Your task to perform on an android device: Go to privacy settings Image 0: 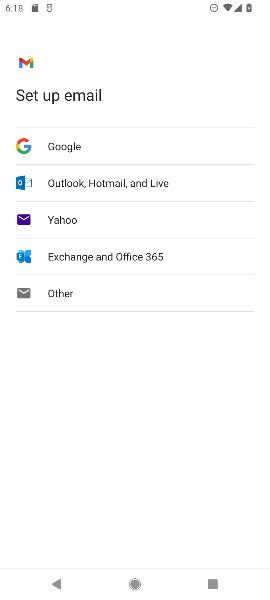
Step 0: press home button
Your task to perform on an android device: Go to privacy settings Image 1: 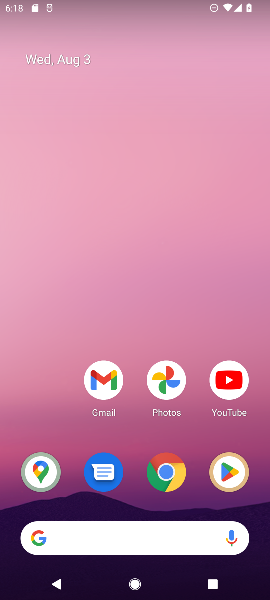
Step 1: drag from (192, 513) to (93, 65)
Your task to perform on an android device: Go to privacy settings Image 2: 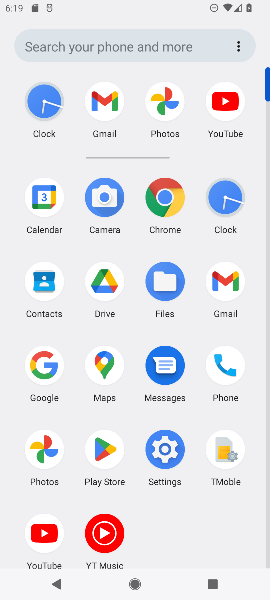
Step 2: click (156, 448)
Your task to perform on an android device: Go to privacy settings Image 3: 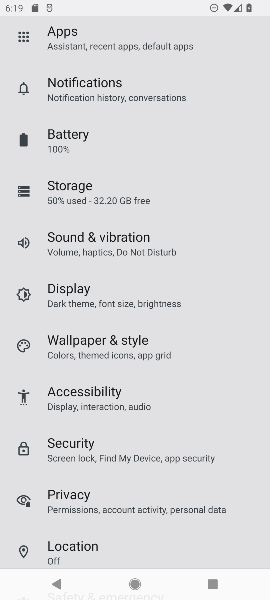
Step 3: click (90, 497)
Your task to perform on an android device: Go to privacy settings Image 4: 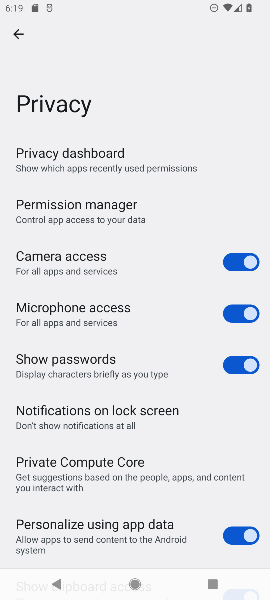
Step 4: task complete